Your task to perform on an android device: Open calendar and show me the second week of next month Image 0: 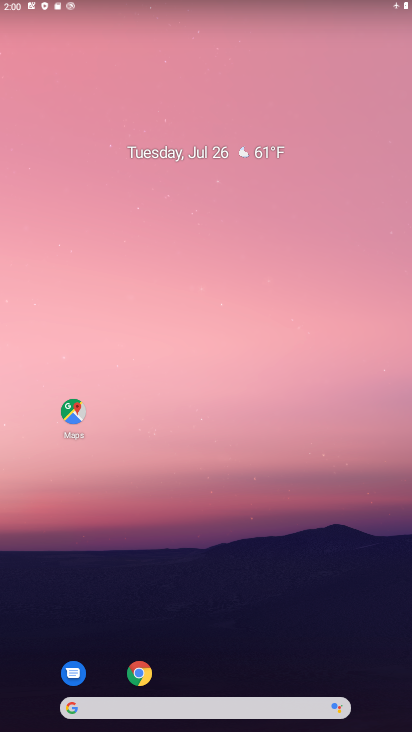
Step 0: drag from (187, 690) to (240, 154)
Your task to perform on an android device: Open calendar and show me the second week of next month Image 1: 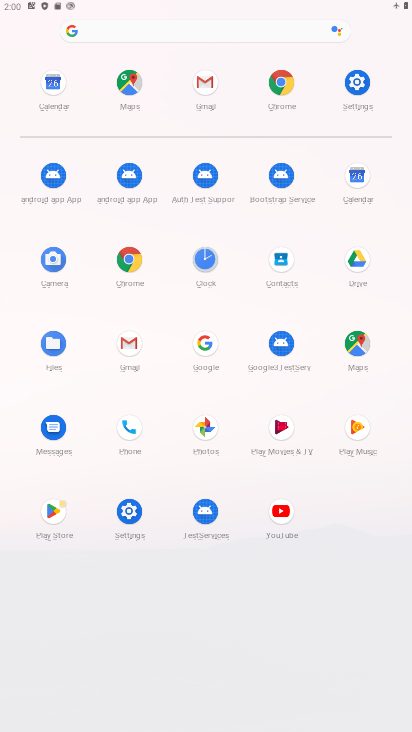
Step 1: click (351, 182)
Your task to perform on an android device: Open calendar and show me the second week of next month Image 2: 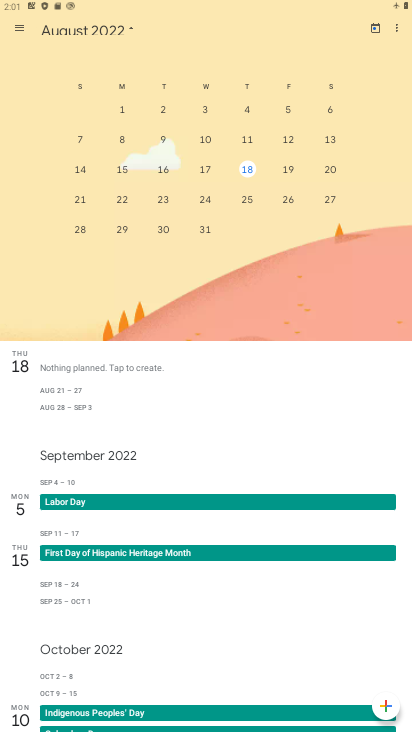
Step 2: click (159, 143)
Your task to perform on an android device: Open calendar and show me the second week of next month Image 3: 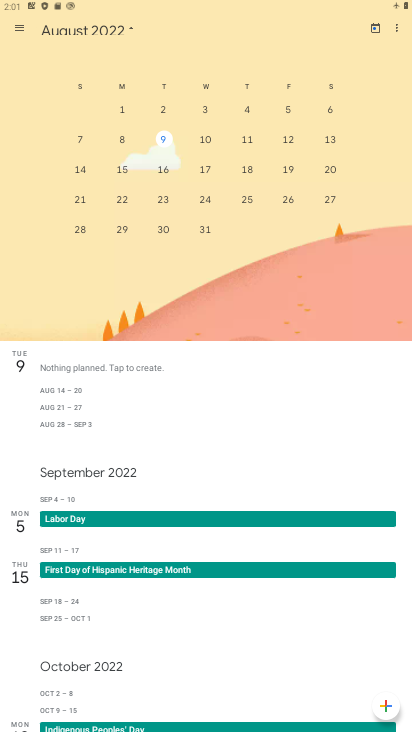
Step 3: task complete